Your task to perform on an android device: Open privacy settings Image 0: 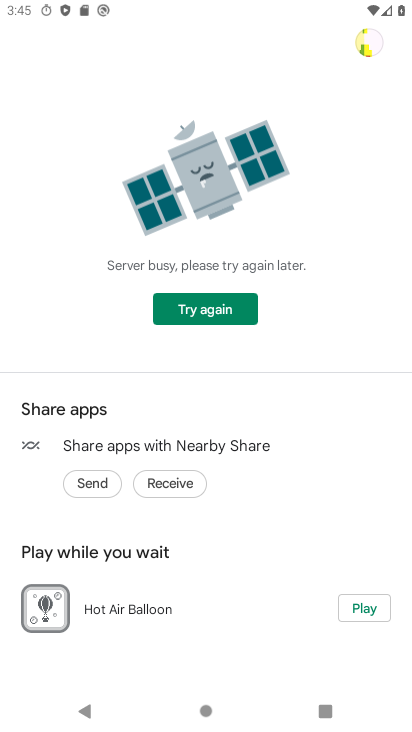
Step 0: drag from (264, 14) to (132, 690)
Your task to perform on an android device: Open privacy settings Image 1: 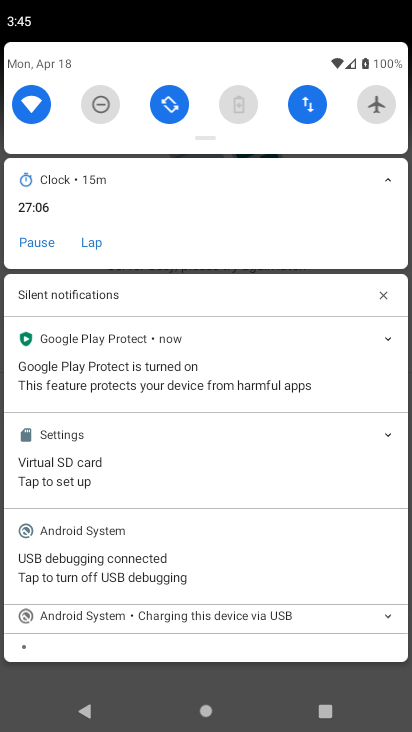
Step 1: drag from (146, 87) to (199, 633)
Your task to perform on an android device: Open privacy settings Image 2: 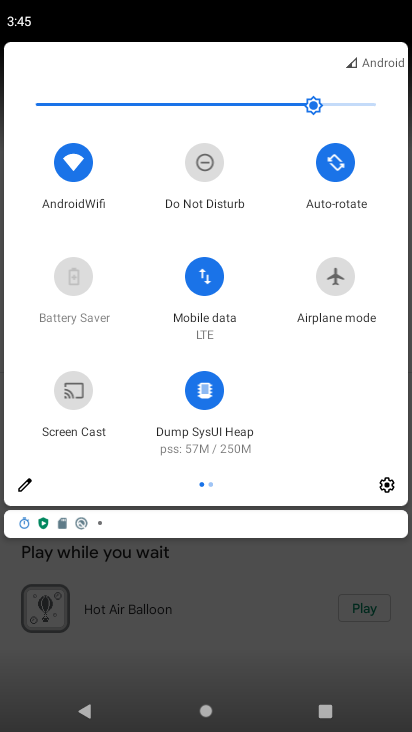
Step 2: click (380, 475)
Your task to perform on an android device: Open privacy settings Image 3: 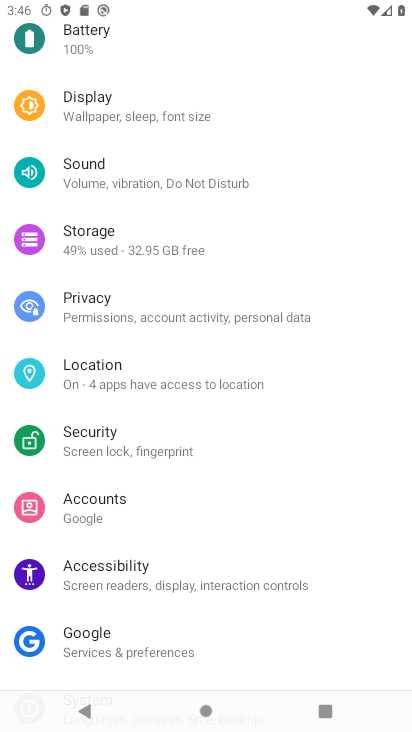
Step 3: click (235, 314)
Your task to perform on an android device: Open privacy settings Image 4: 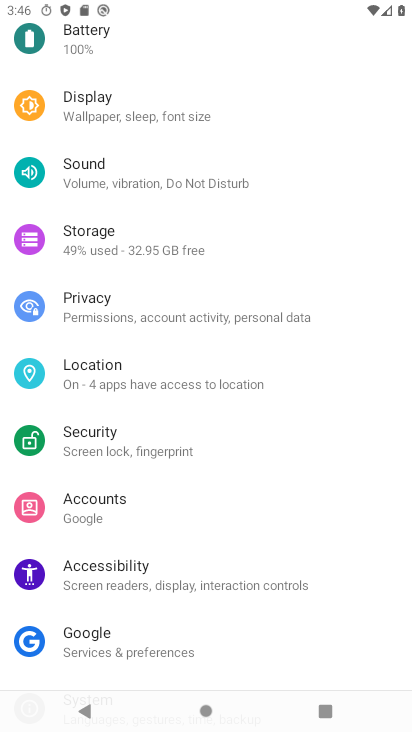
Step 4: click (235, 314)
Your task to perform on an android device: Open privacy settings Image 5: 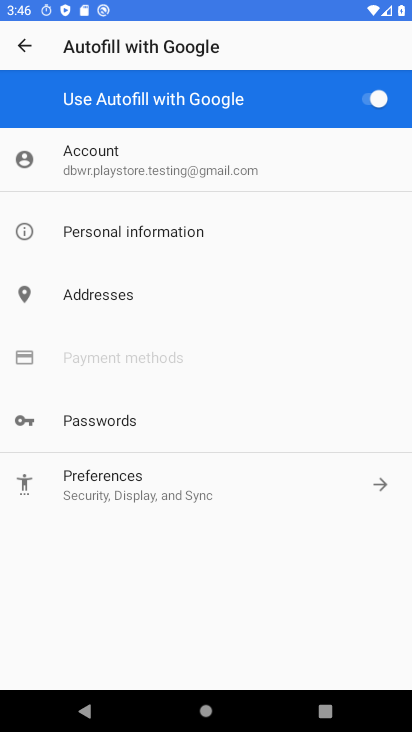
Step 5: task complete